Your task to perform on an android device: turn off improve location accuracy Image 0: 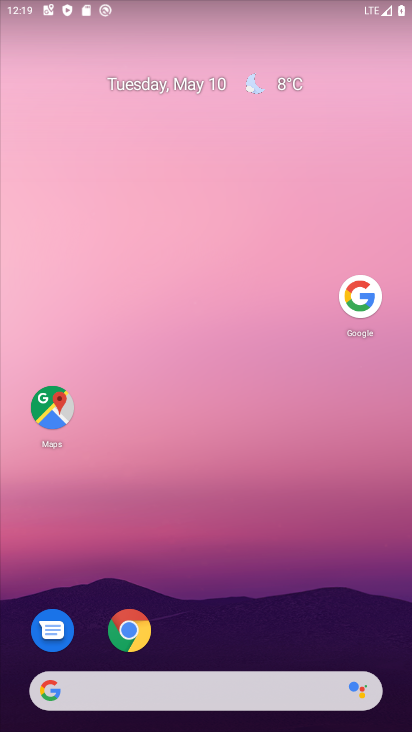
Step 0: drag from (158, 710) to (289, 165)
Your task to perform on an android device: turn off improve location accuracy Image 1: 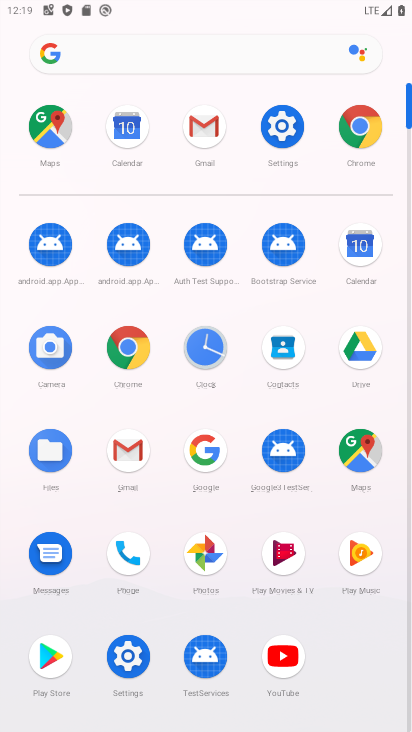
Step 1: click (285, 142)
Your task to perform on an android device: turn off improve location accuracy Image 2: 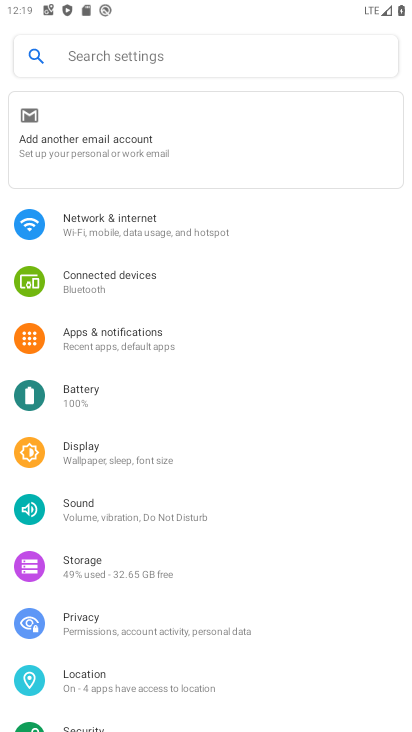
Step 2: click (89, 681)
Your task to perform on an android device: turn off improve location accuracy Image 3: 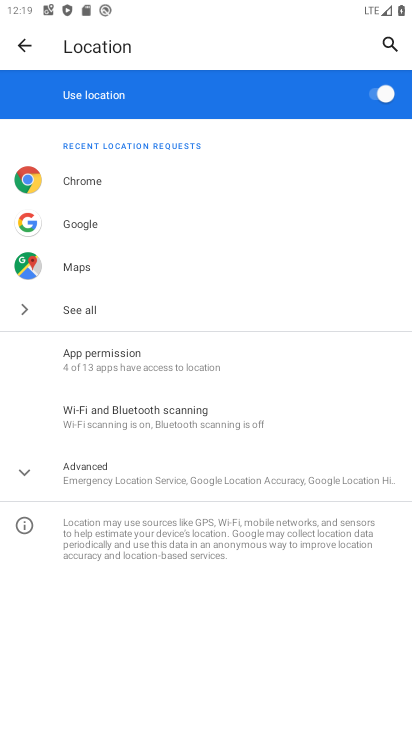
Step 3: click (129, 478)
Your task to perform on an android device: turn off improve location accuracy Image 4: 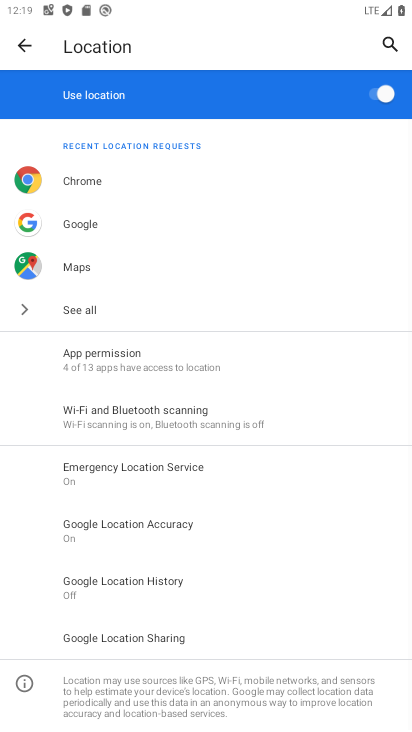
Step 4: click (117, 521)
Your task to perform on an android device: turn off improve location accuracy Image 5: 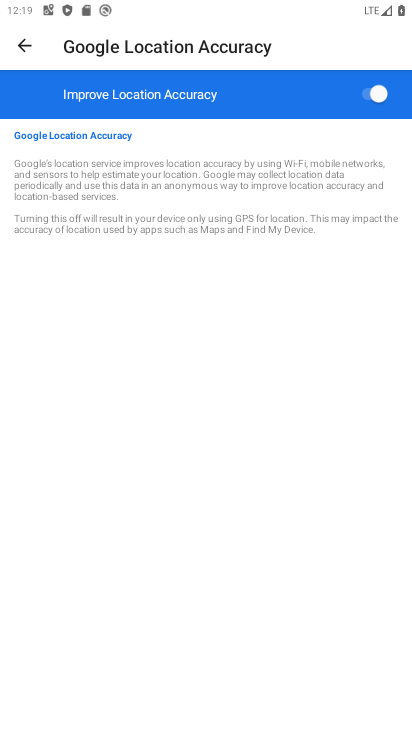
Step 5: click (369, 99)
Your task to perform on an android device: turn off improve location accuracy Image 6: 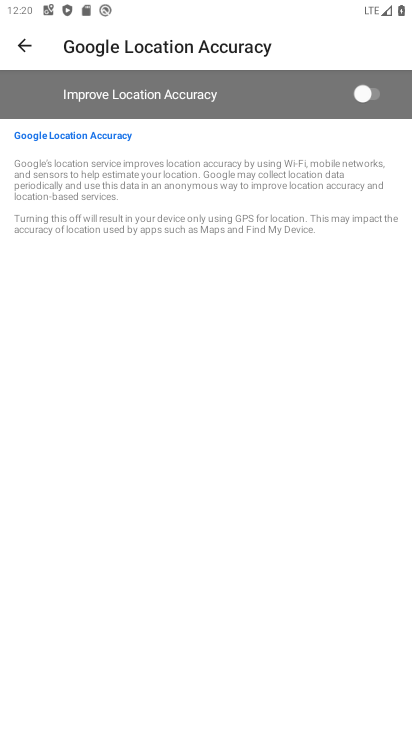
Step 6: task complete